Your task to perform on an android device: change text size in settings app Image 0: 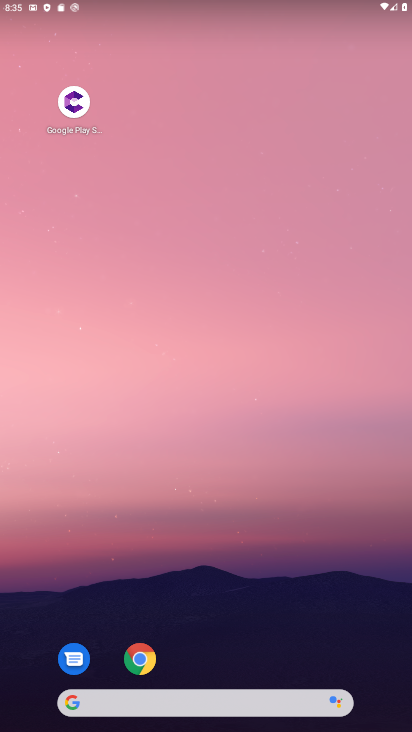
Step 0: drag from (232, 724) to (207, 113)
Your task to perform on an android device: change text size in settings app Image 1: 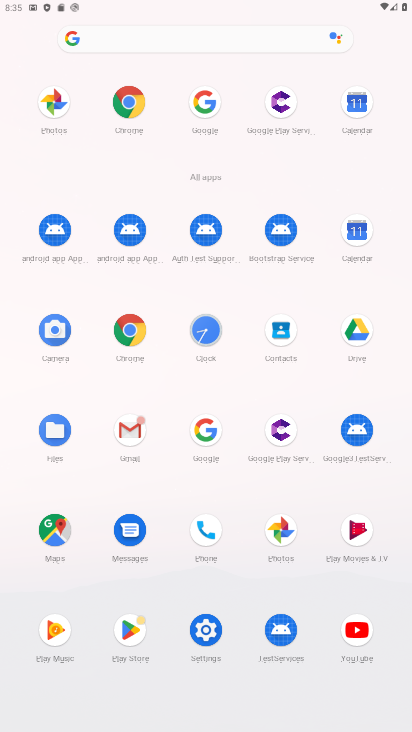
Step 1: click (203, 626)
Your task to perform on an android device: change text size in settings app Image 2: 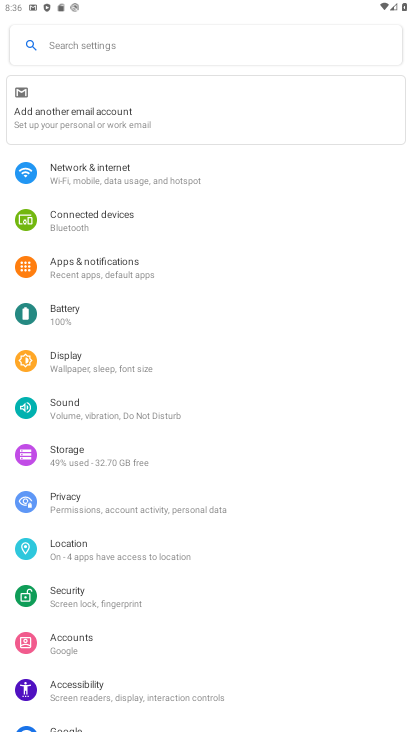
Step 2: click (84, 371)
Your task to perform on an android device: change text size in settings app Image 3: 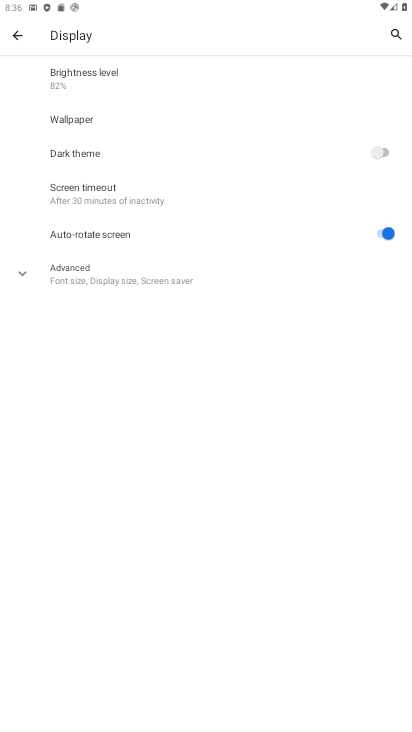
Step 3: click (109, 280)
Your task to perform on an android device: change text size in settings app Image 4: 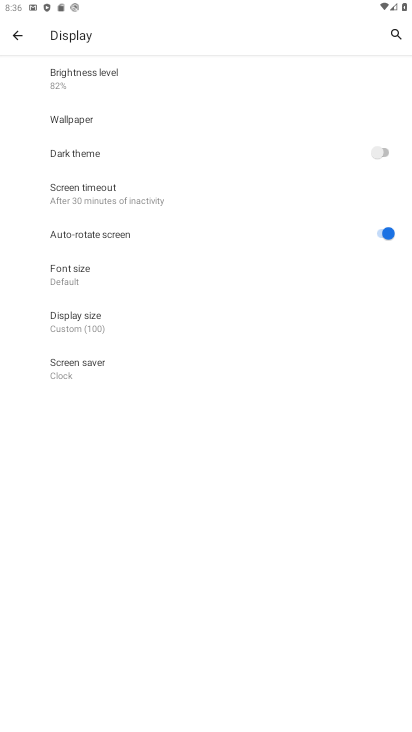
Step 4: click (74, 270)
Your task to perform on an android device: change text size in settings app Image 5: 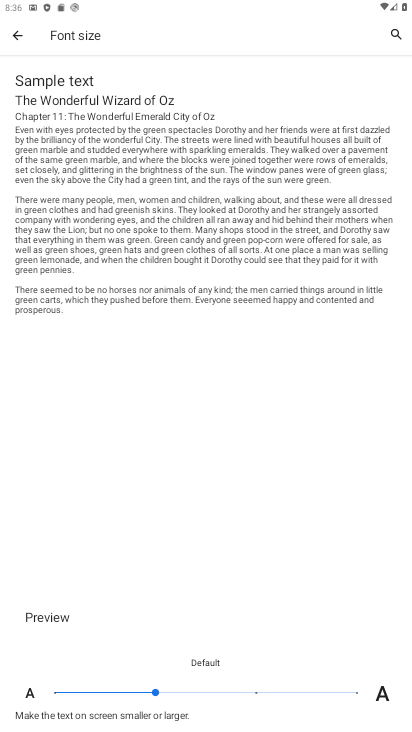
Step 5: click (256, 693)
Your task to perform on an android device: change text size in settings app Image 6: 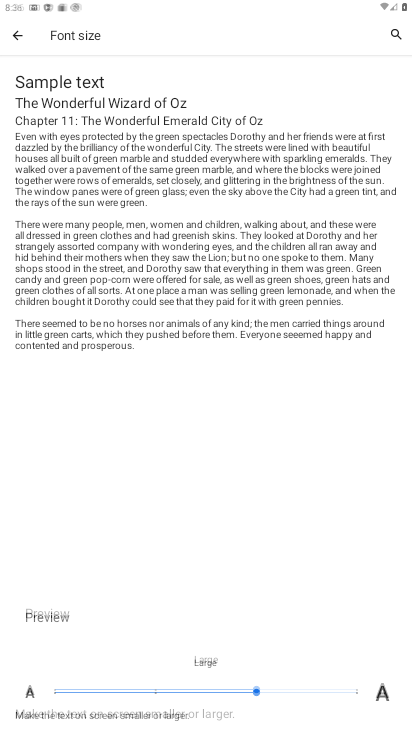
Step 6: click (356, 692)
Your task to perform on an android device: change text size in settings app Image 7: 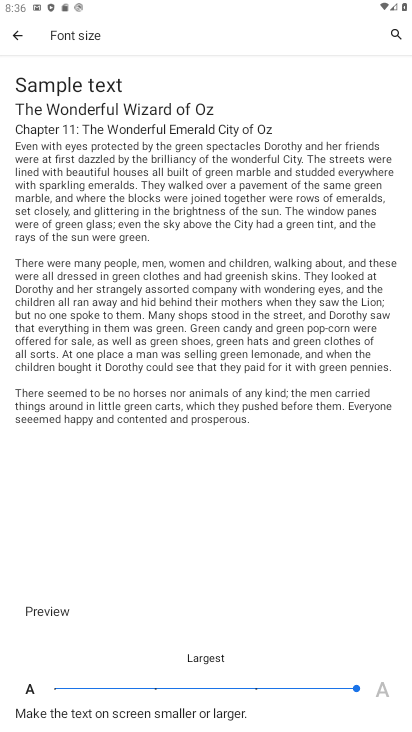
Step 7: task complete